Your task to perform on an android device: Do I have any events tomorrow? Image 0: 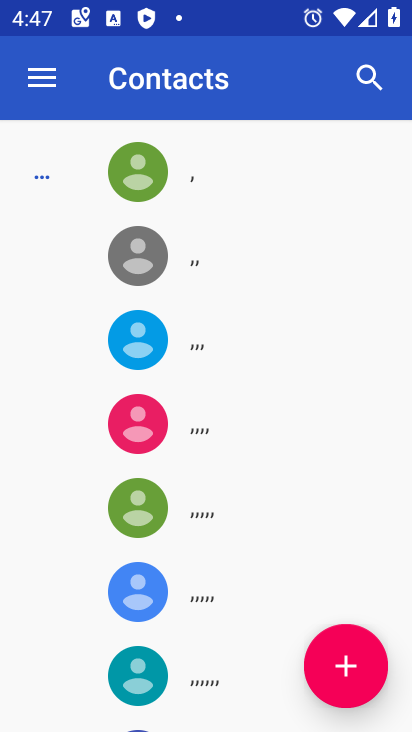
Step 0: press home button
Your task to perform on an android device: Do I have any events tomorrow? Image 1: 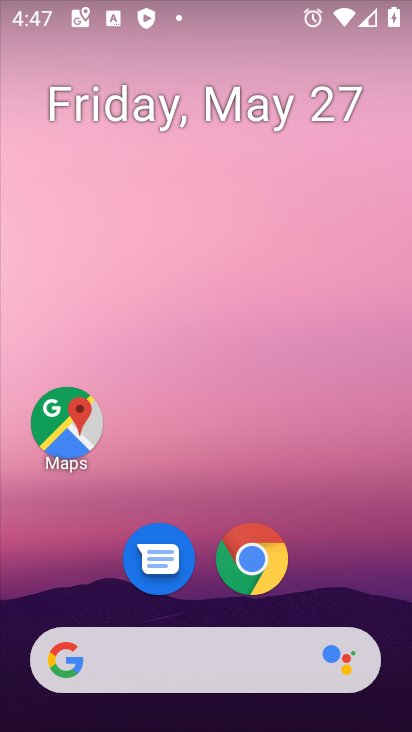
Step 1: drag from (224, 574) to (251, 13)
Your task to perform on an android device: Do I have any events tomorrow? Image 2: 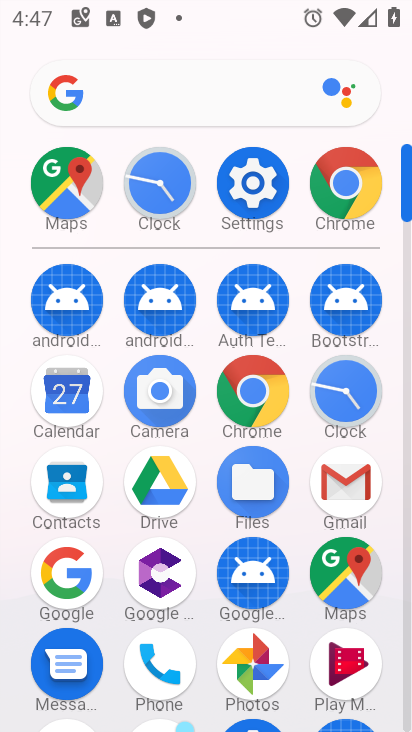
Step 2: click (77, 400)
Your task to perform on an android device: Do I have any events tomorrow? Image 3: 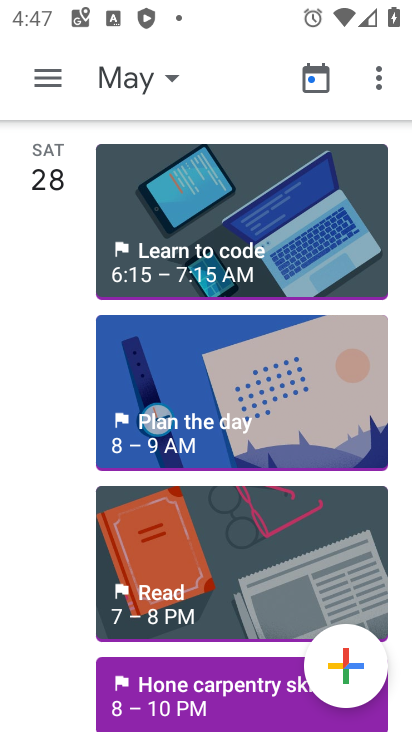
Step 3: click (170, 82)
Your task to perform on an android device: Do I have any events tomorrow? Image 4: 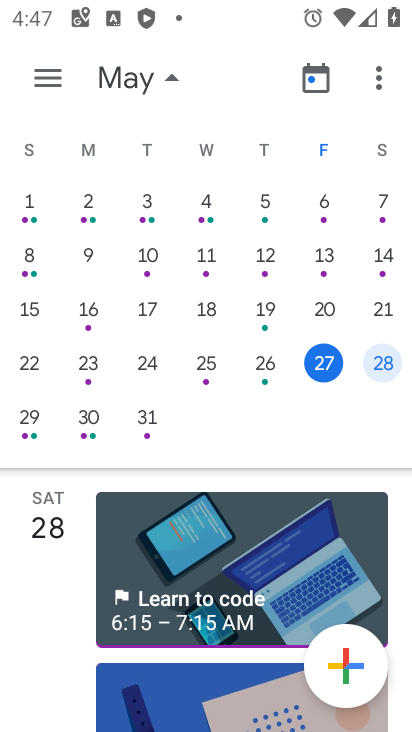
Step 4: click (372, 364)
Your task to perform on an android device: Do I have any events tomorrow? Image 5: 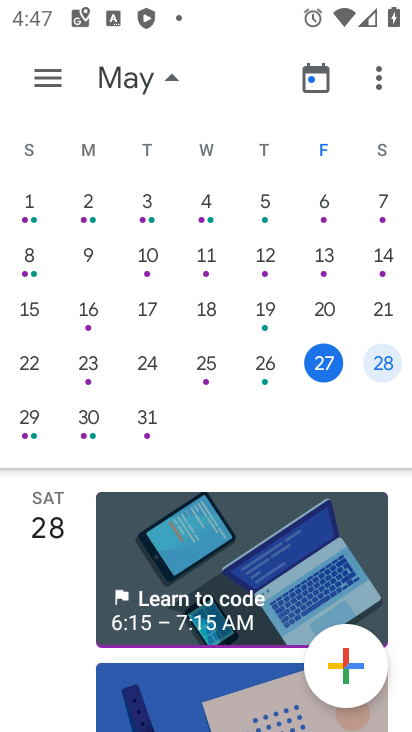
Step 5: task complete